Your task to perform on an android device: add a label to a message in the gmail app Image 0: 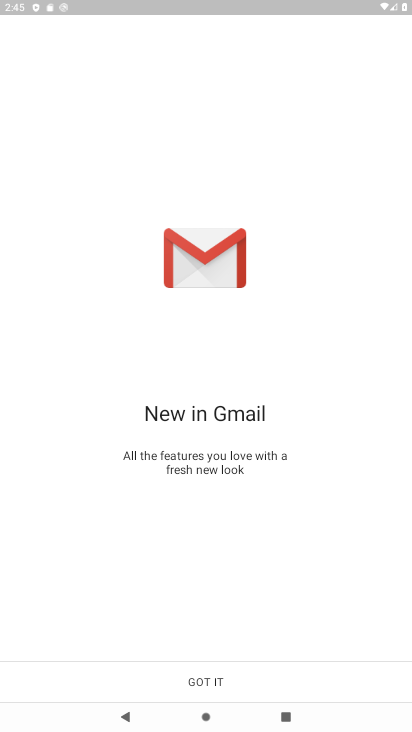
Step 0: click (221, 679)
Your task to perform on an android device: add a label to a message in the gmail app Image 1: 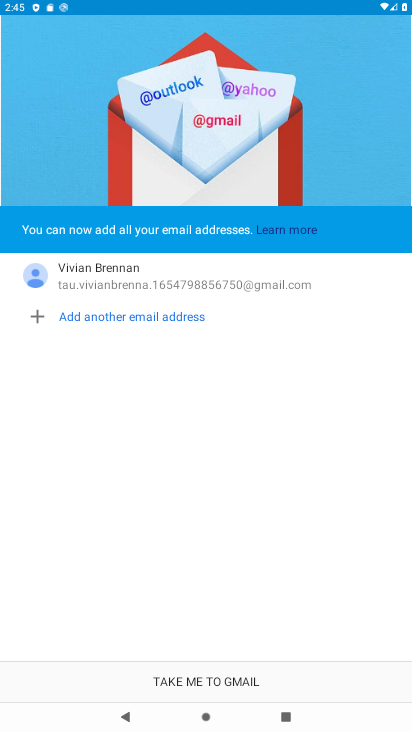
Step 1: click (221, 679)
Your task to perform on an android device: add a label to a message in the gmail app Image 2: 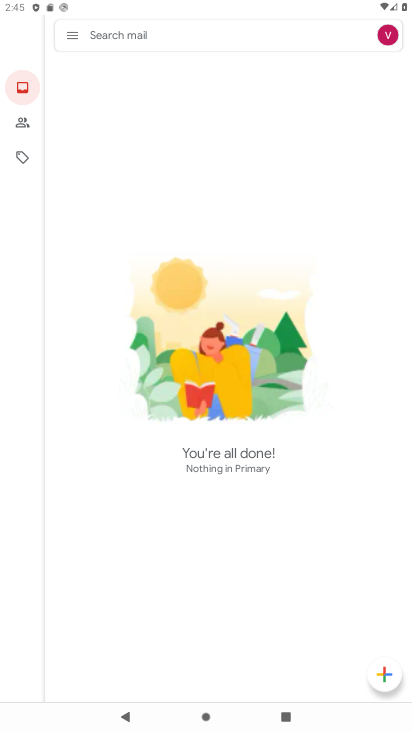
Step 2: task complete